Your task to perform on an android device: See recent photos Image 0: 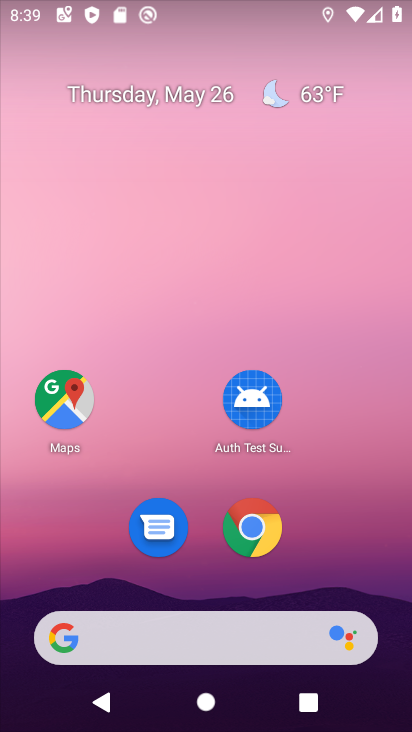
Step 0: drag from (359, 512) to (397, 99)
Your task to perform on an android device: See recent photos Image 1: 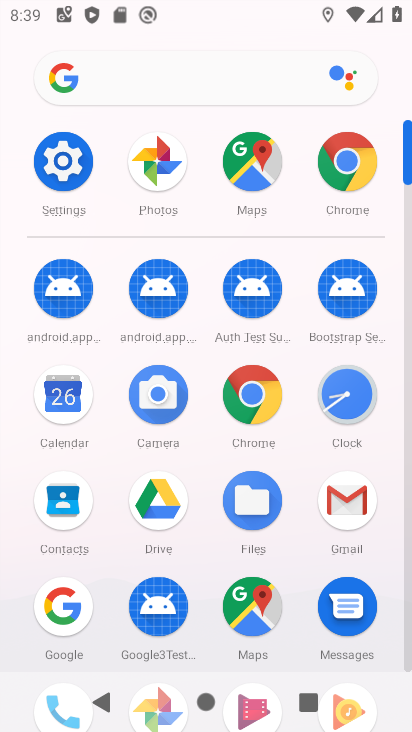
Step 1: drag from (399, 490) to (407, 343)
Your task to perform on an android device: See recent photos Image 2: 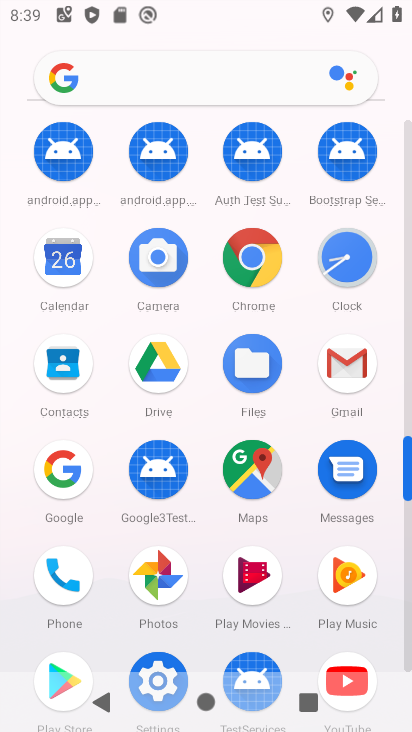
Step 2: click (154, 594)
Your task to perform on an android device: See recent photos Image 3: 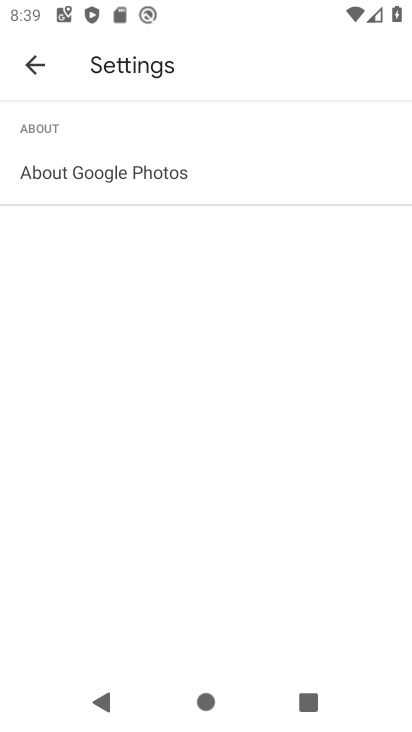
Step 3: click (34, 51)
Your task to perform on an android device: See recent photos Image 4: 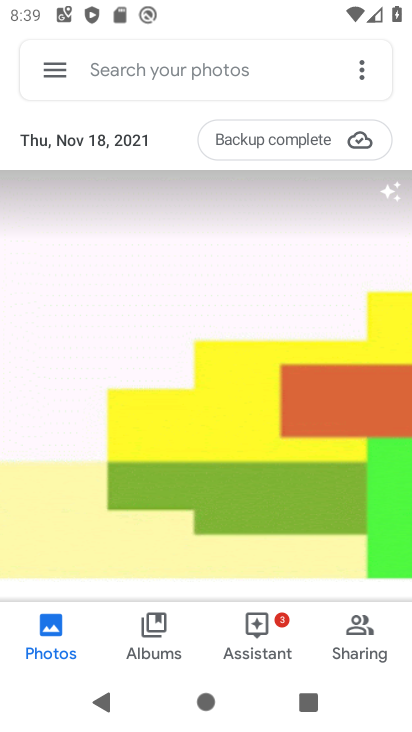
Step 4: task complete